Your task to perform on an android device: turn on priority inbox in the gmail app Image 0: 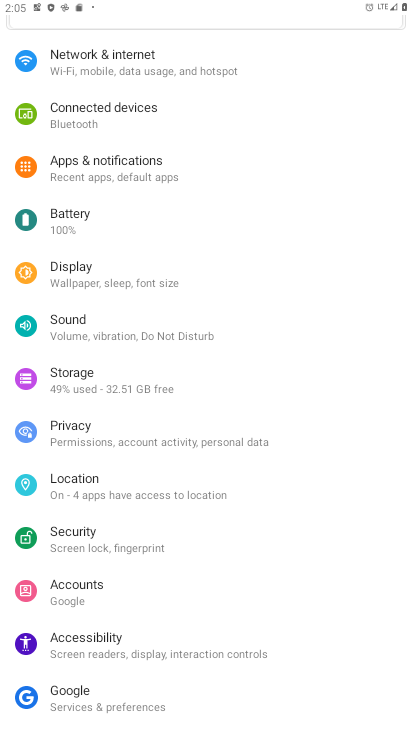
Step 0: press home button
Your task to perform on an android device: turn on priority inbox in the gmail app Image 1: 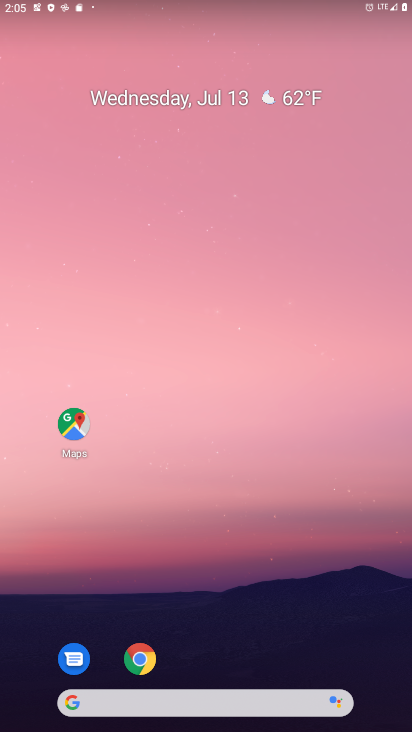
Step 1: drag from (248, 715) to (249, 198)
Your task to perform on an android device: turn on priority inbox in the gmail app Image 2: 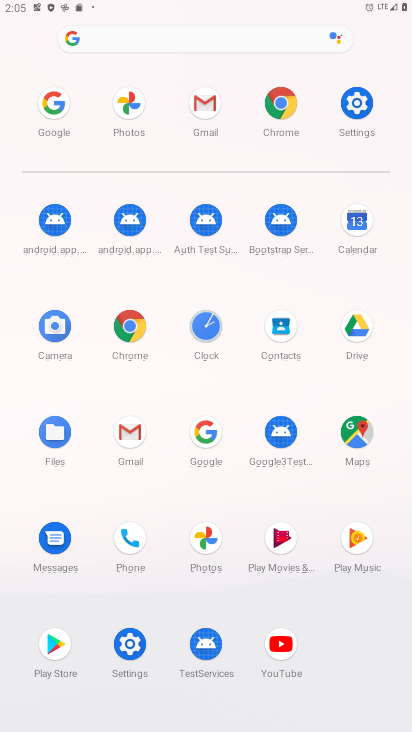
Step 2: click (130, 437)
Your task to perform on an android device: turn on priority inbox in the gmail app Image 3: 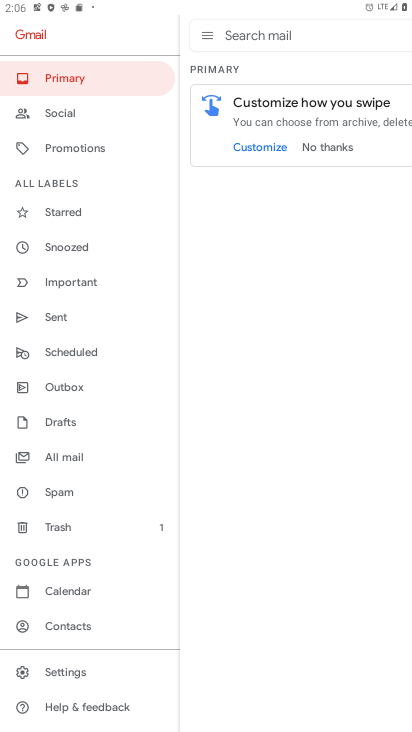
Step 3: click (73, 668)
Your task to perform on an android device: turn on priority inbox in the gmail app Image 4: 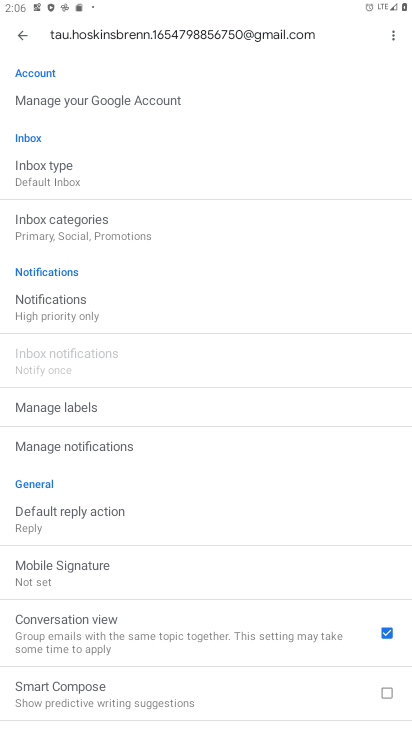
Step 4: click (55, 172)
Your task to perform on an android device: turn on priority inbox in the gmail app Image 5: 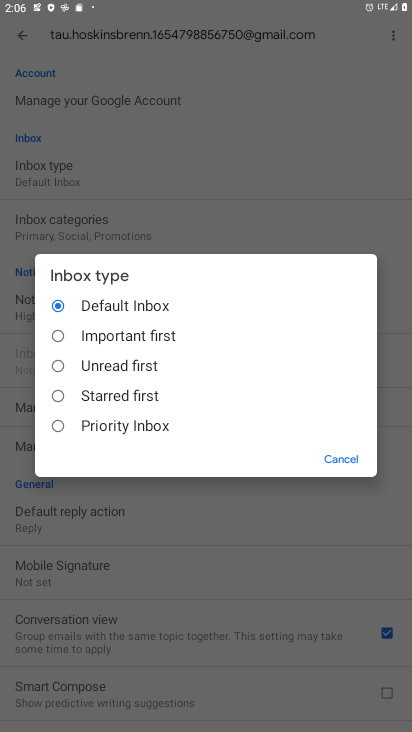
Step 5: click (59, 427)
Your task to perform on an android device: turn on priority inbox in the gmail app Image 6: 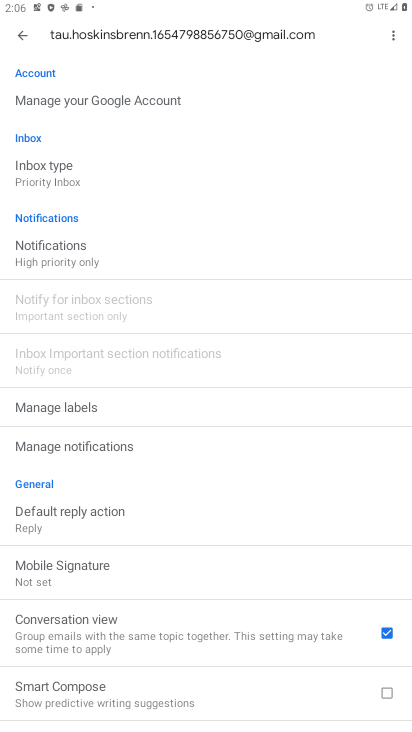
Step 6: task complete